Your task to perform on an android device: set the timer Image 0: 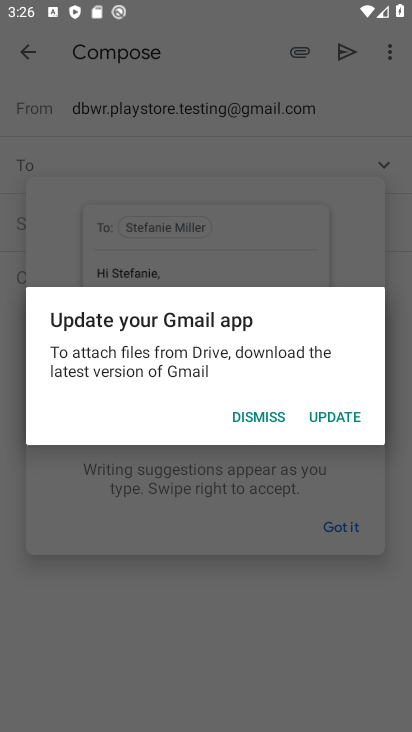
Step 0: press home button
Your task to perform on an android device: set the timer Image 1: 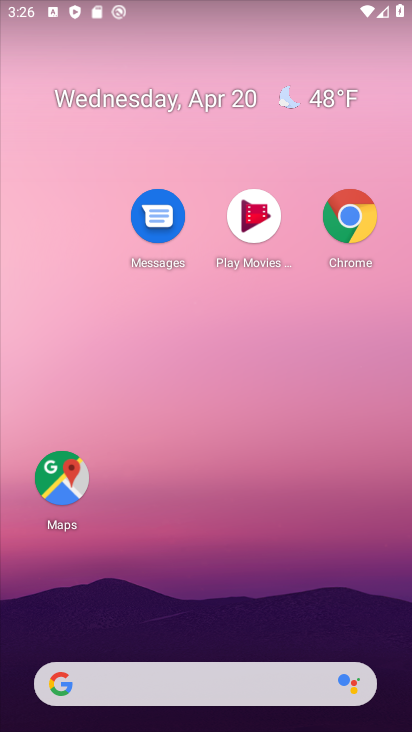
Step 1: drag from (279, 586) to (274, 97)
Your task to perform on an android device: set the timer Image 2: 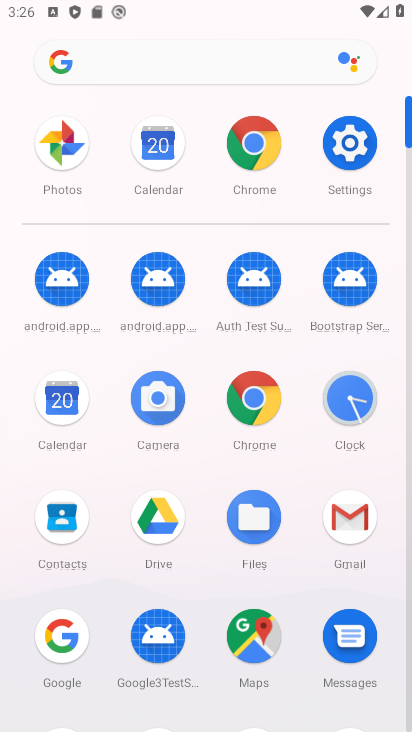
Step 2: click (336, 413)
Your task to perform on an android device: set the timer Image 3: 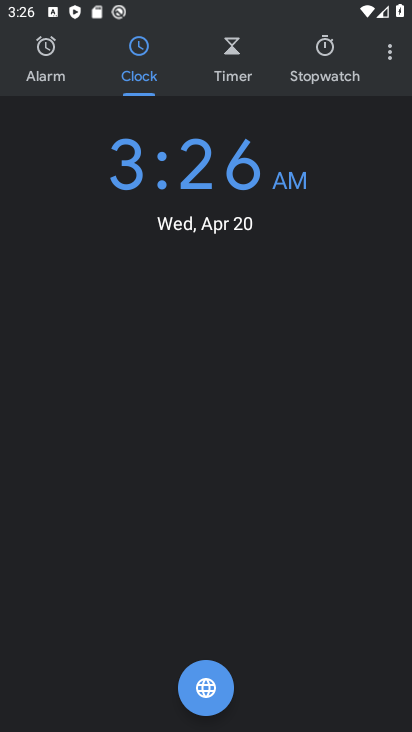
Step 3: click (235, 87)
Your task to perform on an android device: set the timer Image 4: 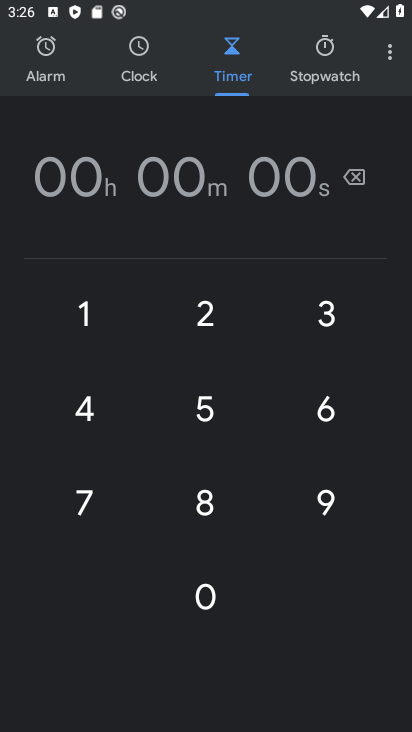
Step 4: click (319, 419)
Your task to perform on an android device: set the timer Image 5: 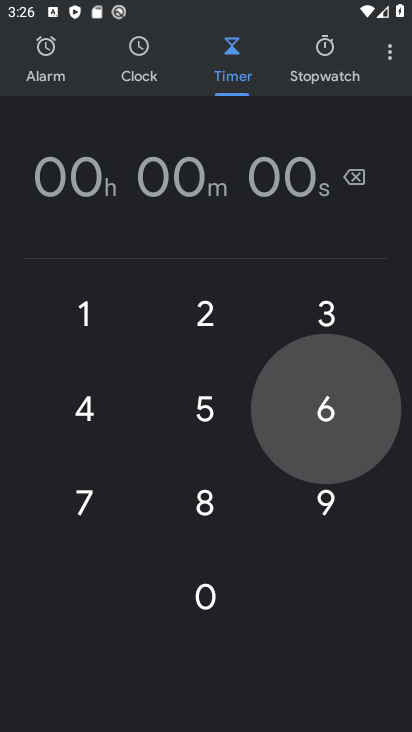
Step 5: click (208, 409)
Your task to perform on an android device: set the timer Image 6: 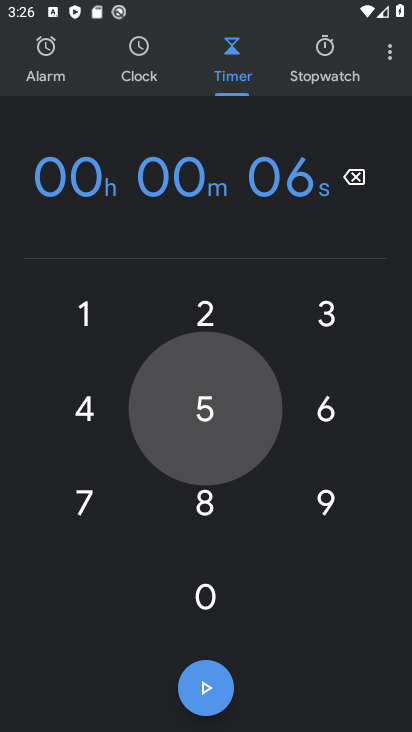
Step 6: click (329, 420)
Your task to perform on an android device: set the timer Image 7: 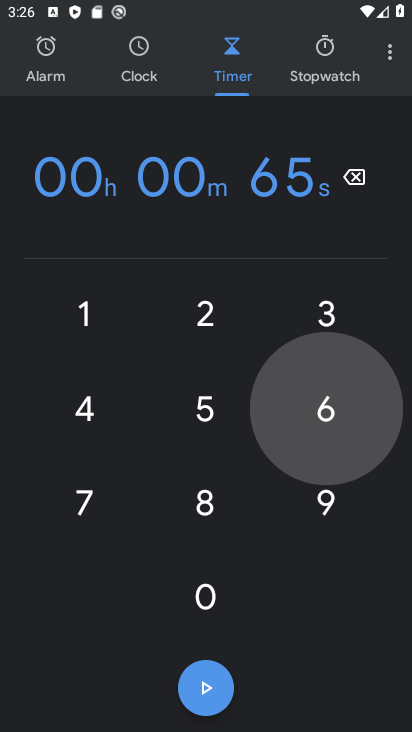
Step 7: click (223, 410)
Your task to perform on an android device: set the timer Image 8: 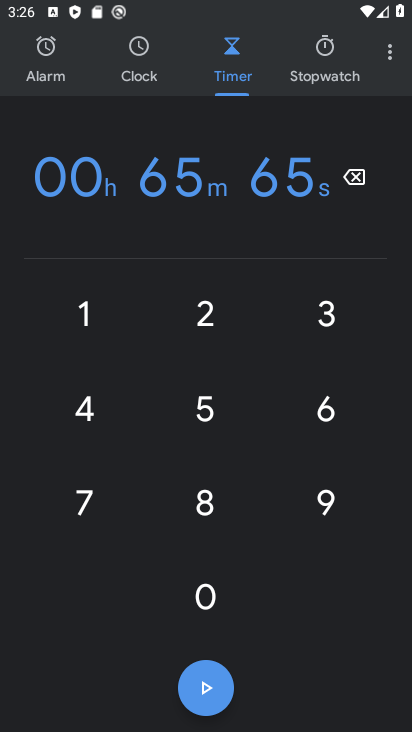
Step 8: click (189, 698)
Your task to perform on an android device: set the timer Image 9: 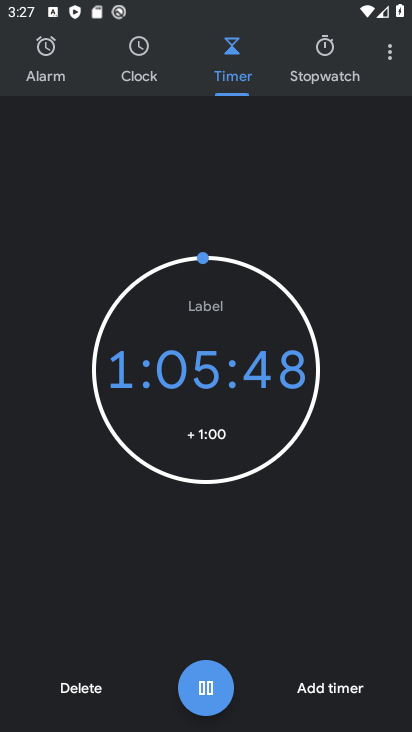
Step 9: task complete